Your task to perform on an android device: turn off location Image 0: 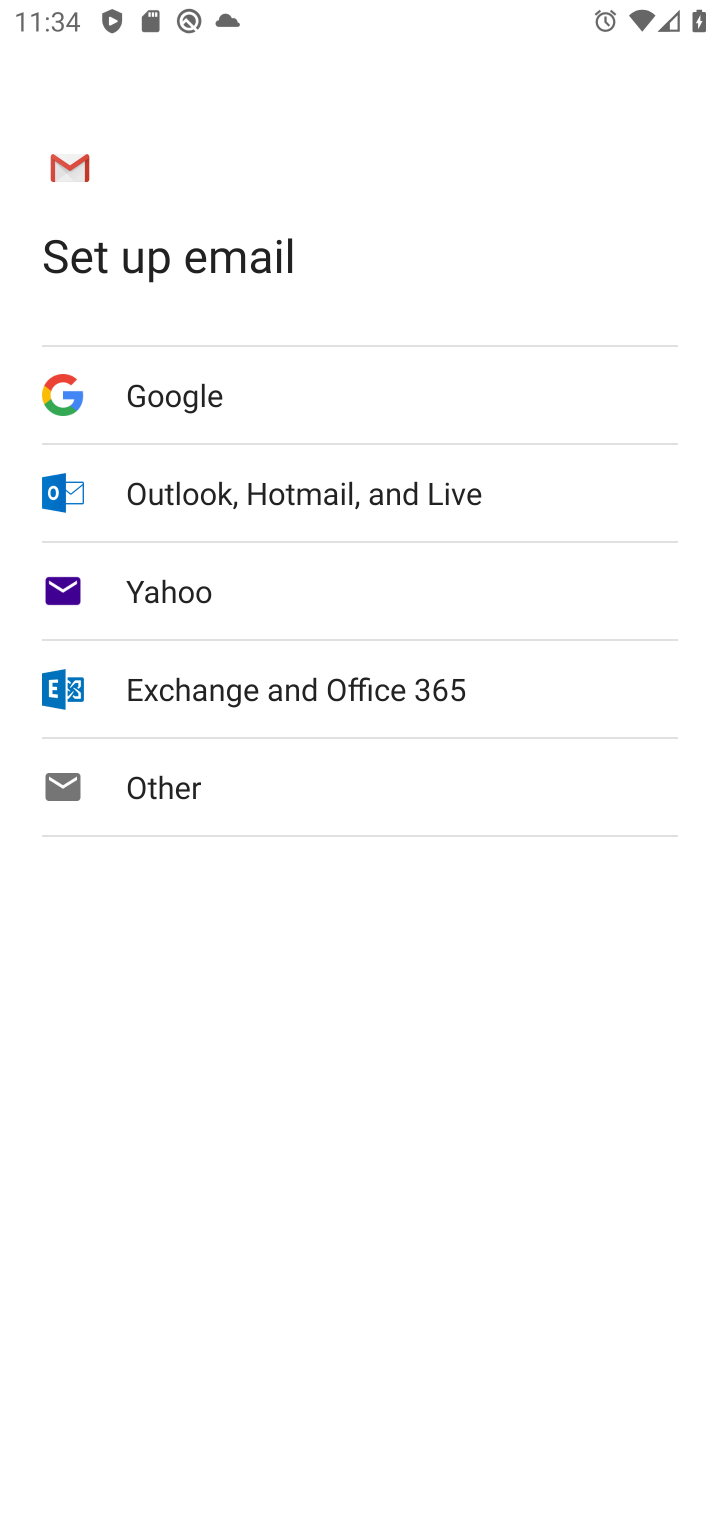
Step 0: press home button
Your task to perform on an android device: turn off location Image 1: 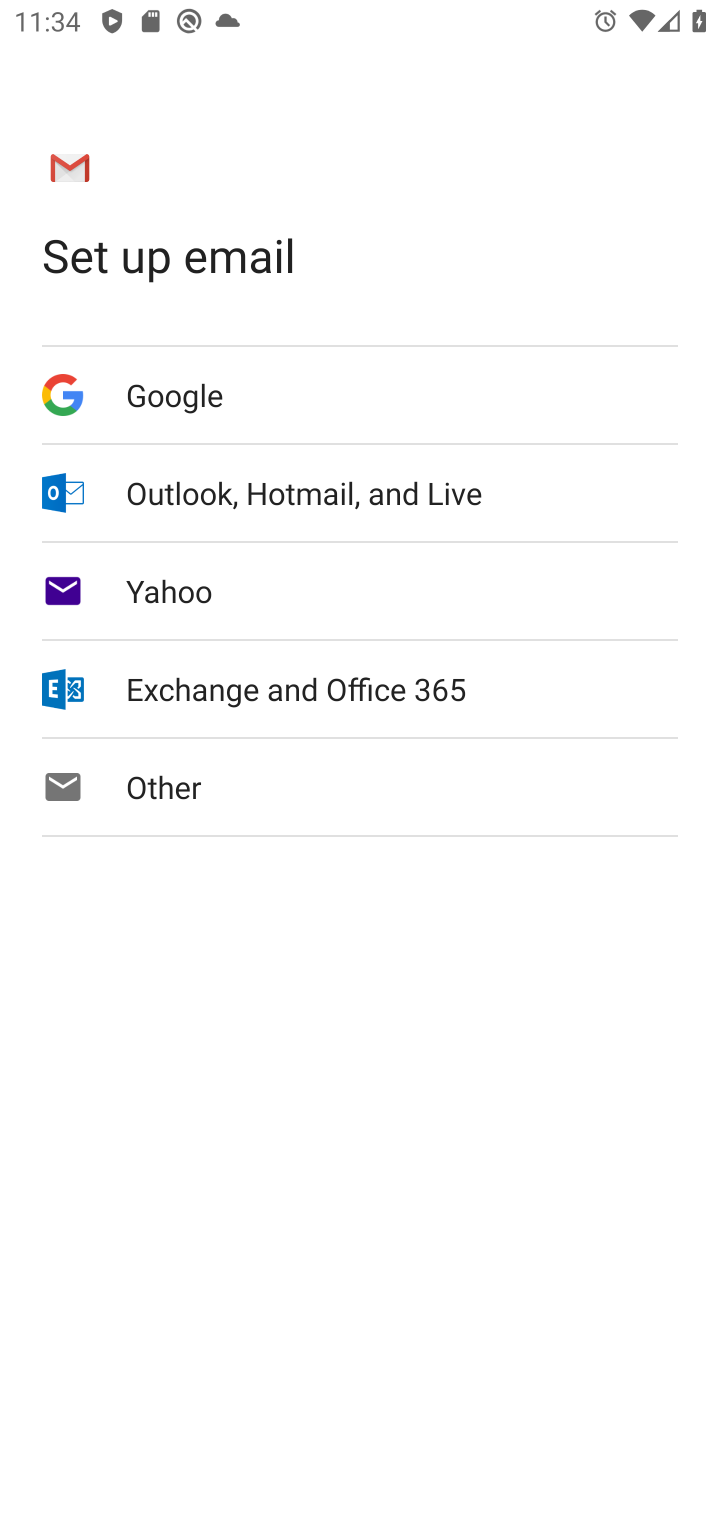
Step 1: press home button
Your task to perform on an android device: turn off location Image 2: 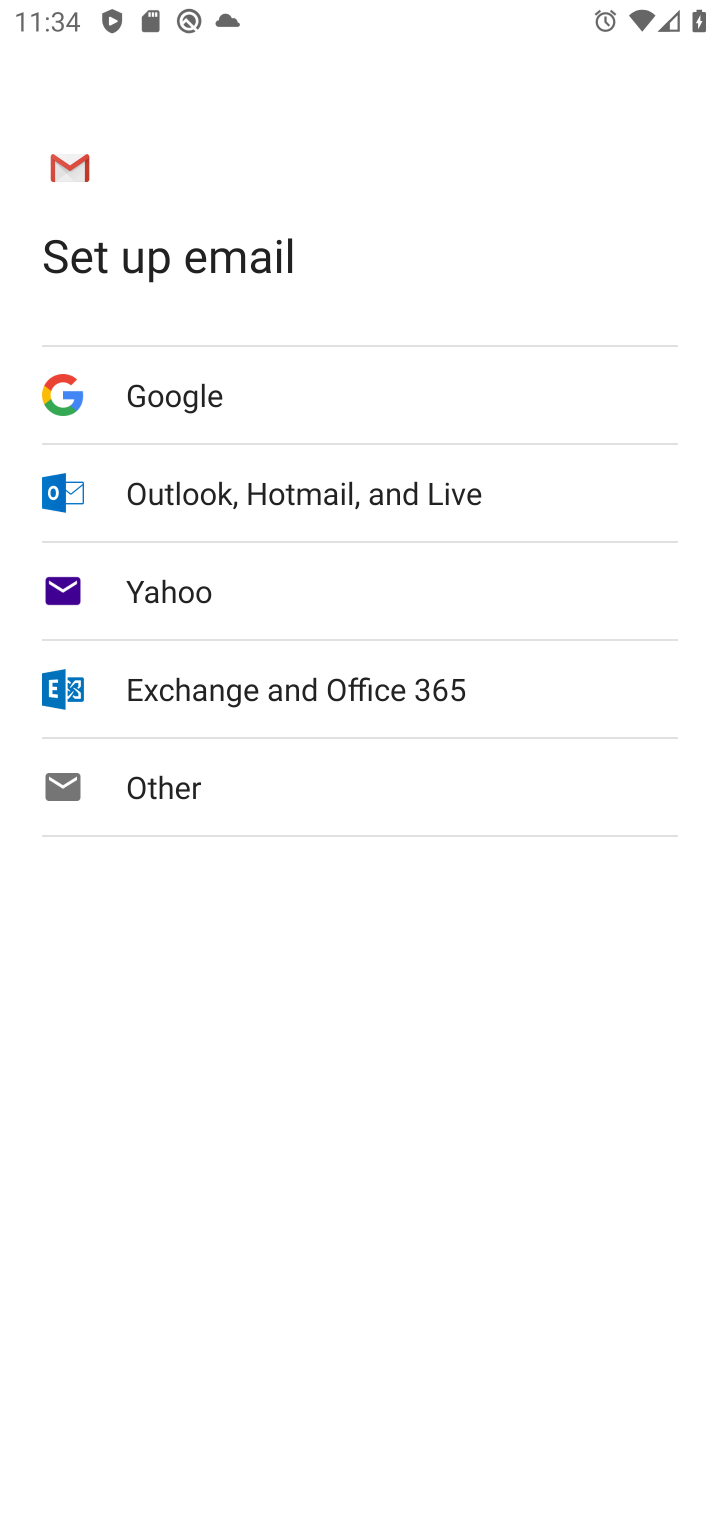
Step 2: drag from (211, 1375) to (157, 607)
Your task to perform on an android device: turn off location Image 3: 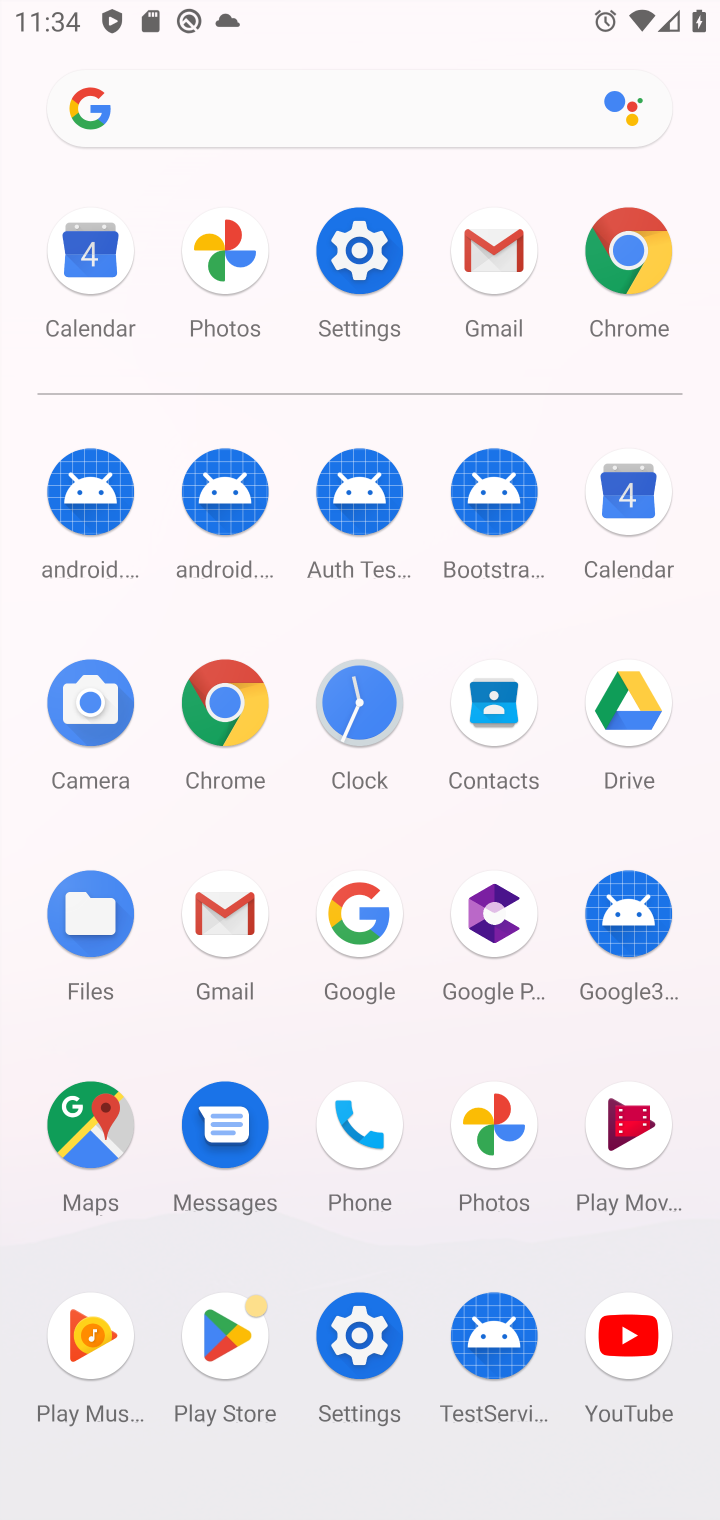
Step 3: click (331, 234)
Your task to perform on an android device: turn off location Image 4: 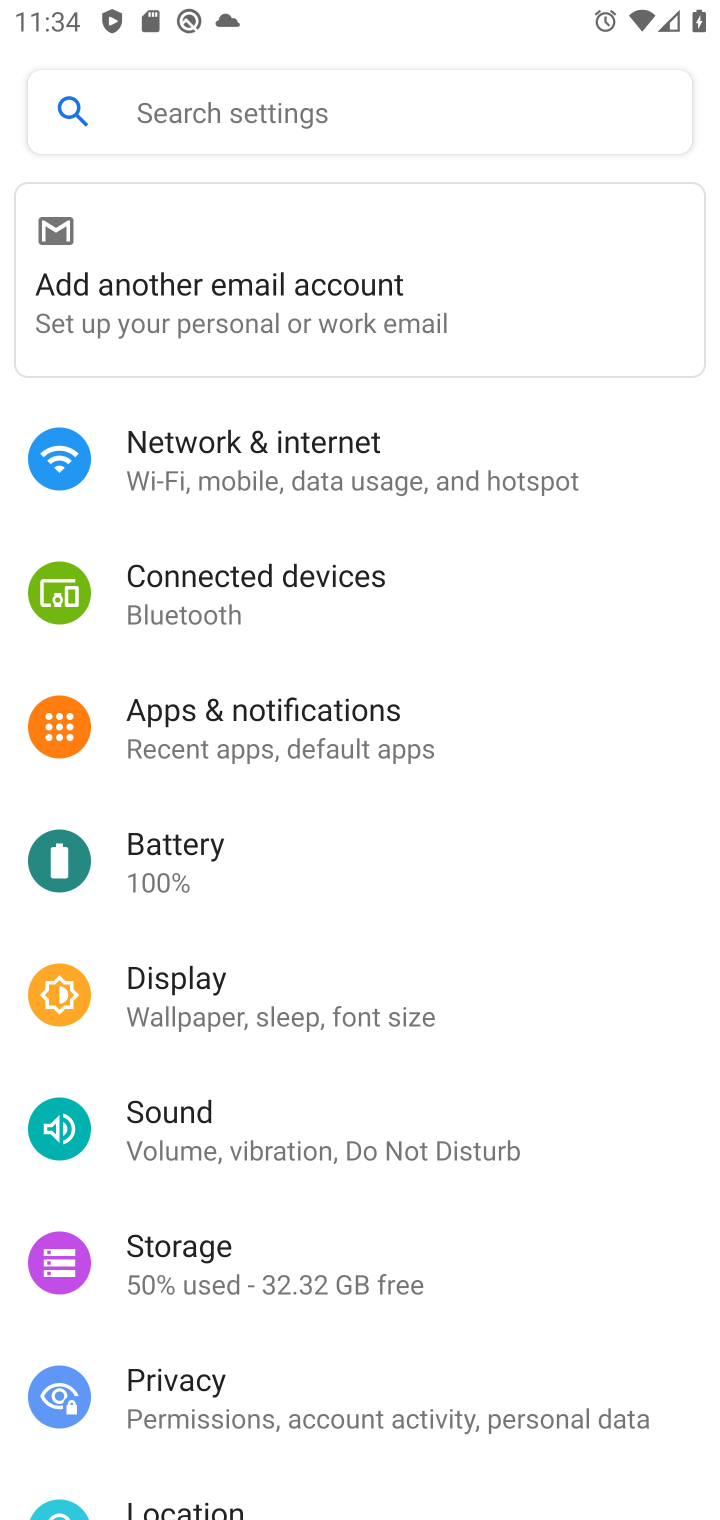
Step 4: drag from (267, 1189) to (105, 299)
Your task to perform on an android device: turn off location Image 5: 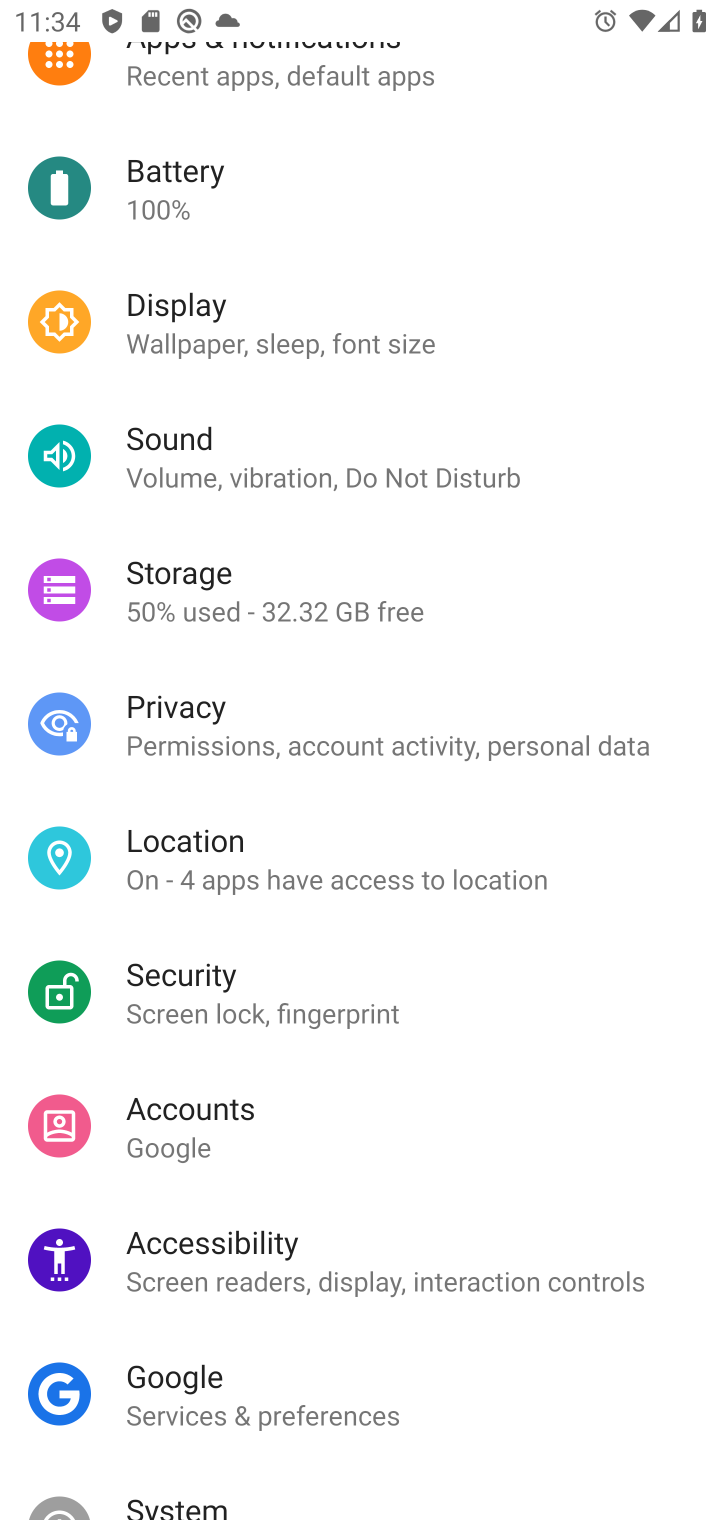
Step 5: click (181, 831)
Your task to perform on an android device: turn off location Image 6: 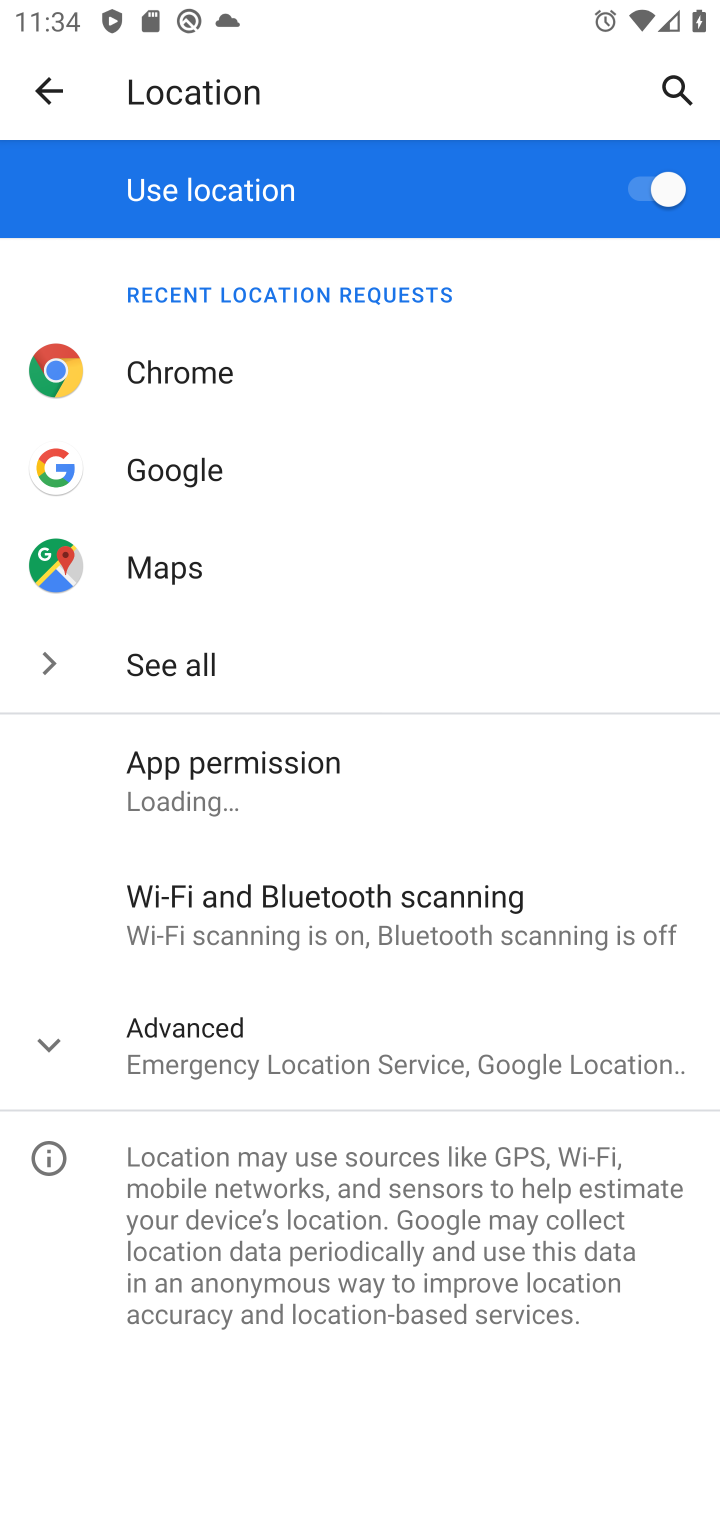
Step 6: click (103, 214)
Your task to perform on an android device: turn off location Image 7: 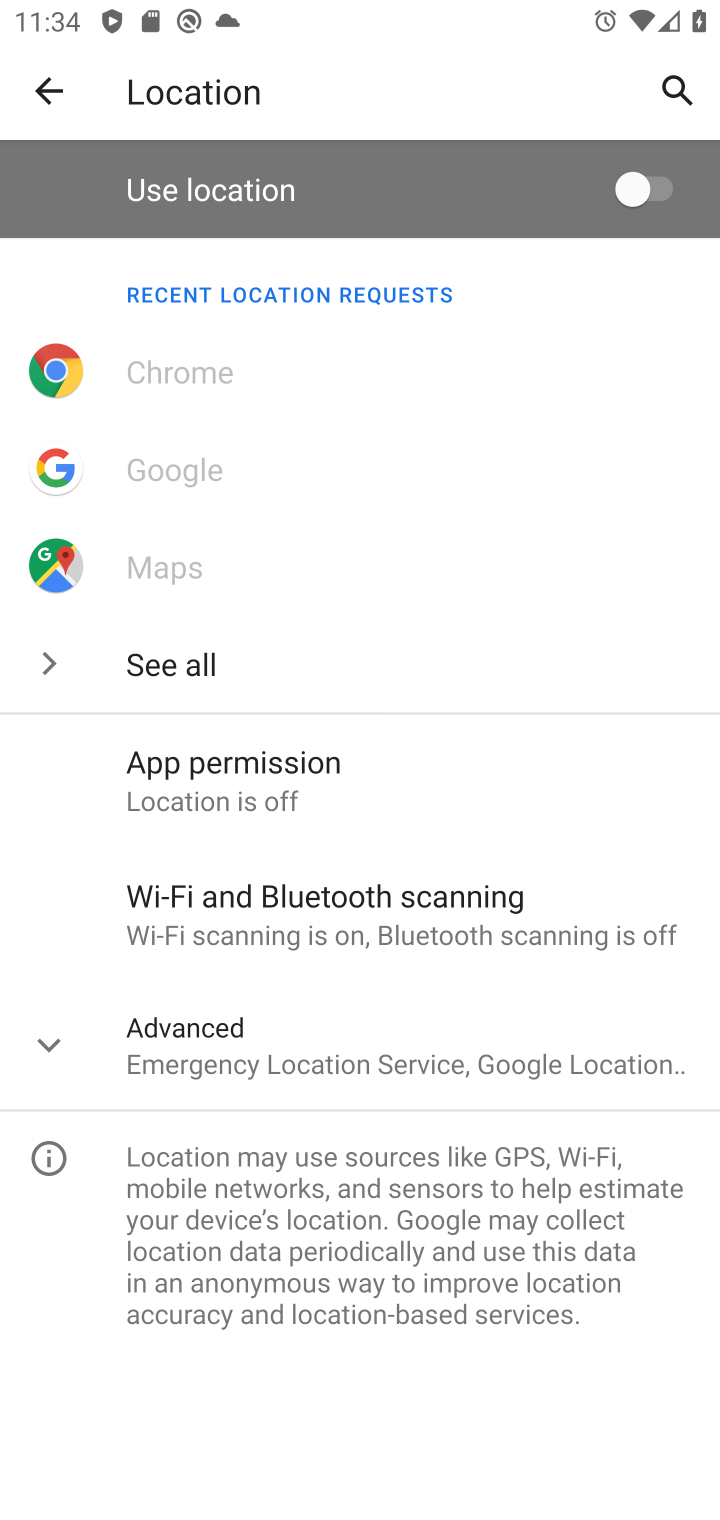
Step 7: task complete